Your task to perform on an android device: Look up the top rated 18v miter saw on Home Depot. Image 0: 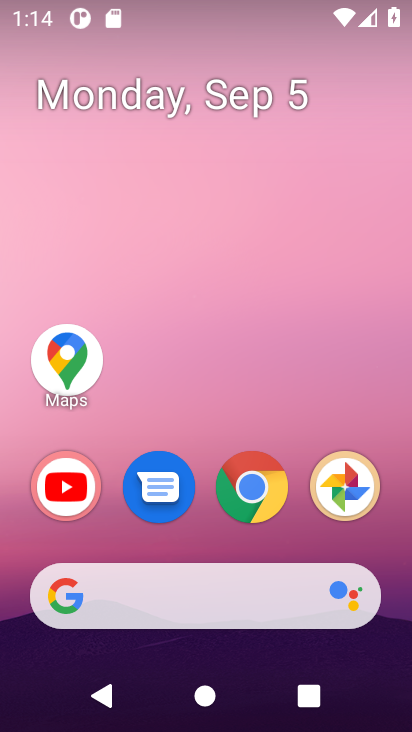
Step 0: click (248, 485)
Your task to perform on an android device: Look up the top rated 18v miter saw on Home Depot. Image 1: 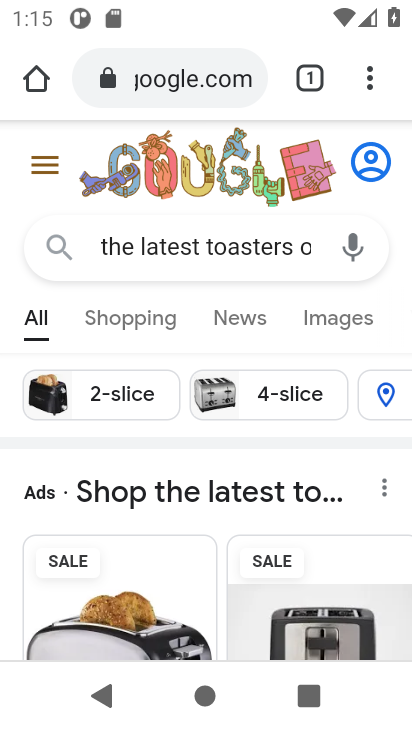
Step 1: click (173, 77)
Your task to perform on an android device: Look up the top rated 18v miter saw on Home Depot. Image 2: 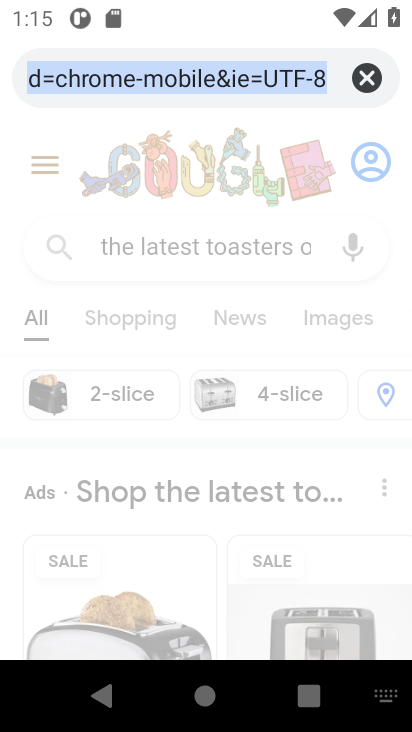
Step 2: click (364, 82)
Your task to perform on an android device: Look up the top rated 18v miter saw on Home Depot. Image 3: 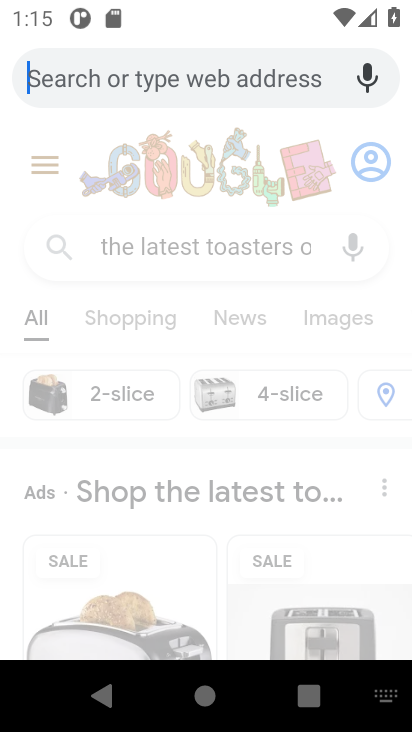
Step 3: type "the top rated 18v miter saw on Home Depot."
Your task to perform on an android device: Look up the top rated 18v miter saw on Home Depot. Image 4: 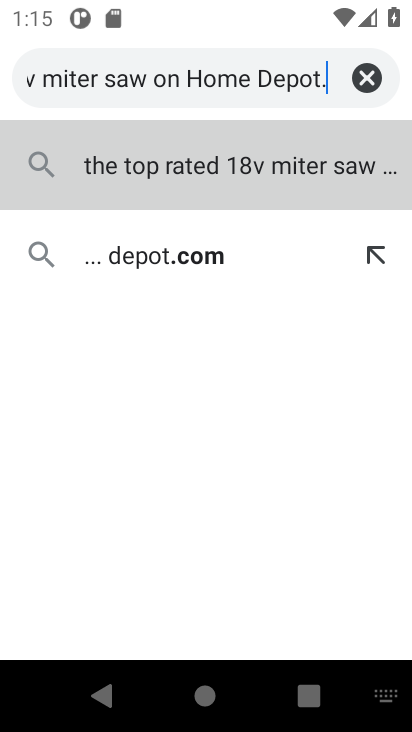
Step 4: click (244, 193)
Your task to perform on an android device: Look up the top rated 18v miter saw on Home Depot. Image 5: 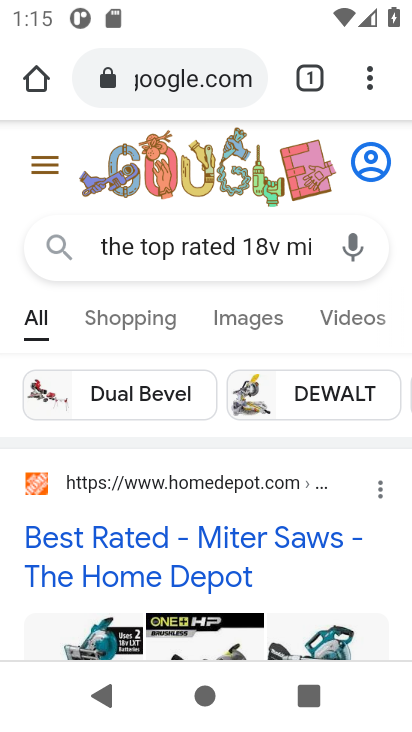
Step 5: task complete